Your task to perform on an android device: open sync settings in chrome Image 0: 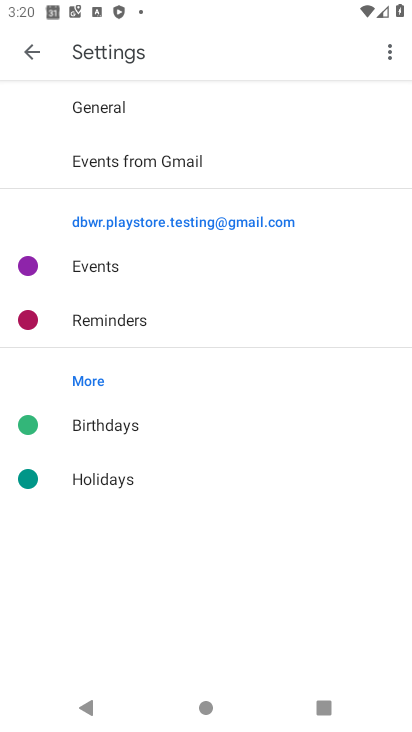
Step 0: press home button
Your task to perform on an android device: open sync settings in chrome Image 1: 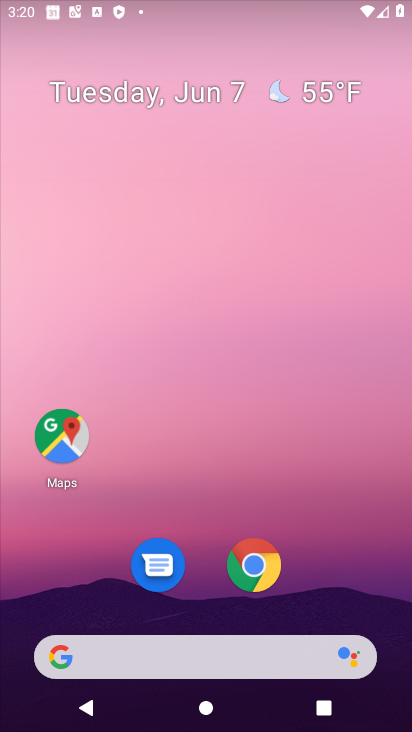
Step 1: drag from (233, 524) to (258, 107)
Your task to perform on an android device: open sync settings in chrome Image 2: 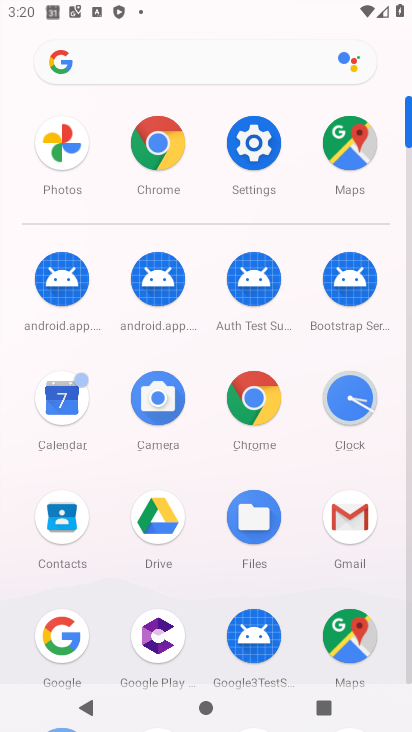
Step 2: click (263, 407)
Your task to perform on an android device: open sync settings in chrome Image 3: 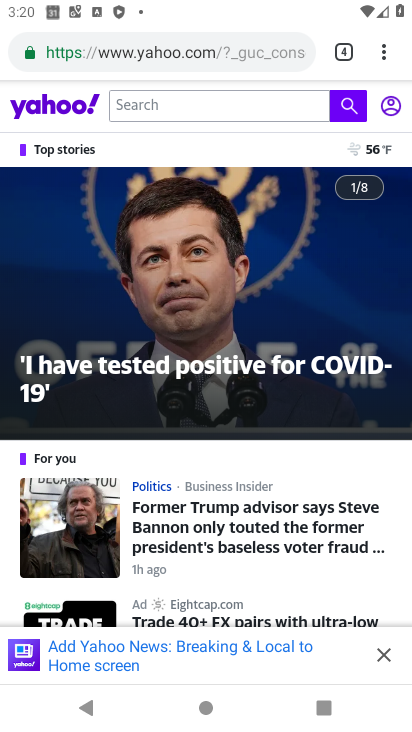
Step 3: drag from (385, 45) to (226, 614)
Your task to perform on an android device: open sync settings in chrome Image 4: 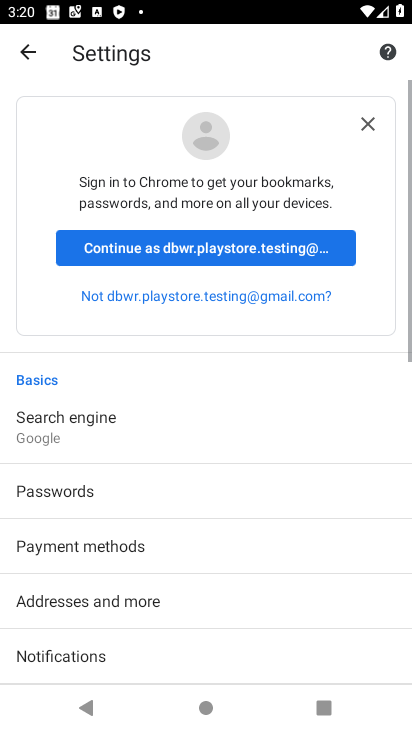
Step 4: drag from (201, 637) to (162, 91)
Your task to perform on an android device: open sync settings in chrome Image 5: 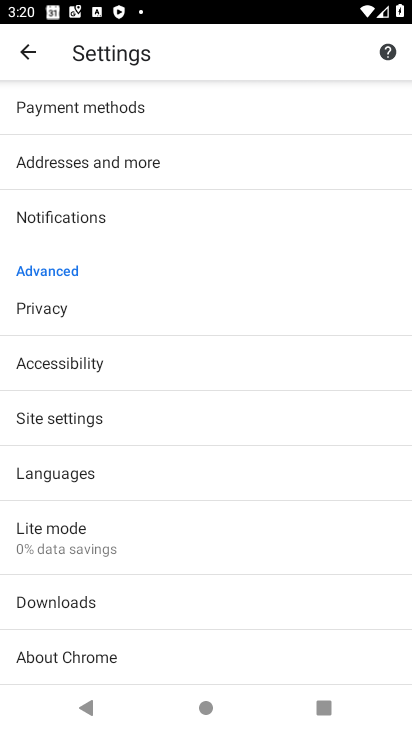
Step 5: click (115, 419)
Your task to perform on an android device: open sync settings in chrome Image 6: 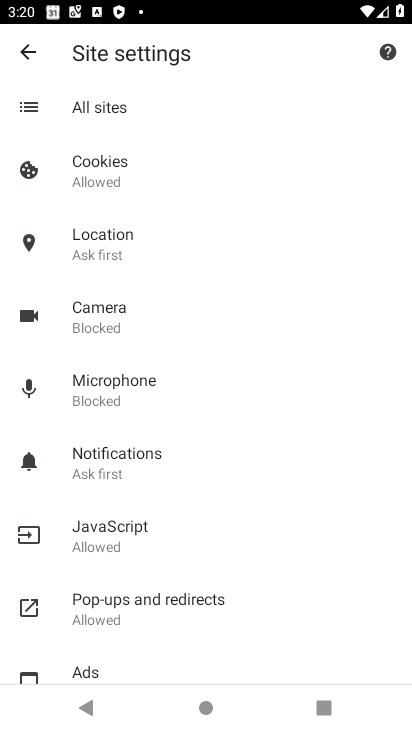
Step 6: drag from (164, 643) to (145, 250)
Your task to perform on an android device: open sync settings in chrome Image 7: 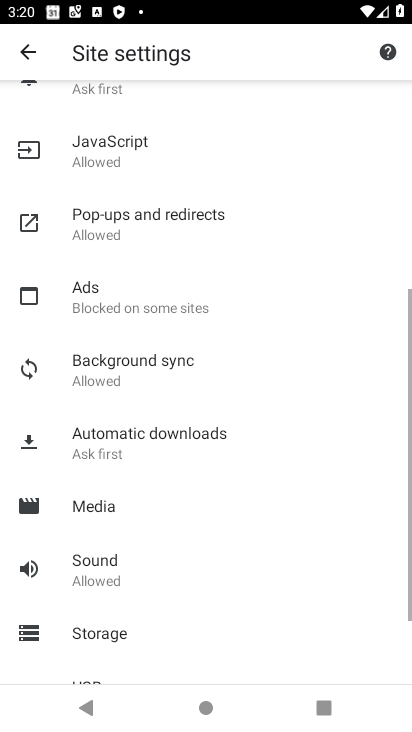
Step 7: click (124, 341)
Your task to perform on an android device: open sync settings in chrome Image 8: 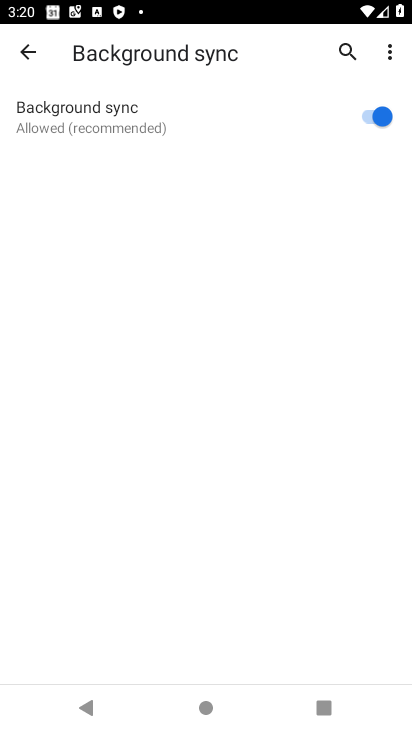
Step 8: task complete